Your task to perform on an android device: check battery use Image 0: 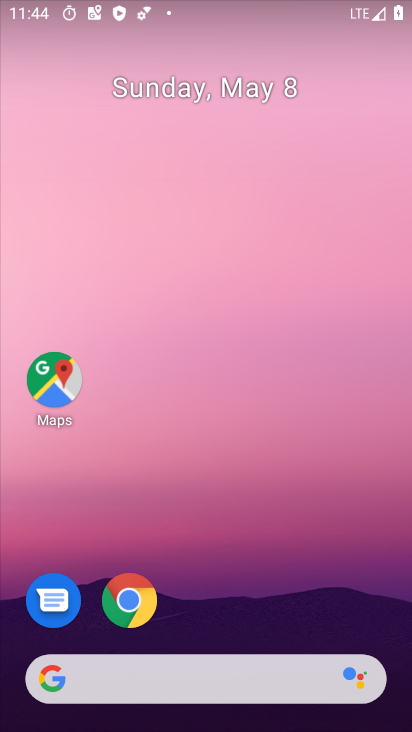
Step 0: click (220, 222)
Your task to perform on an android device: check battery use Image 1: 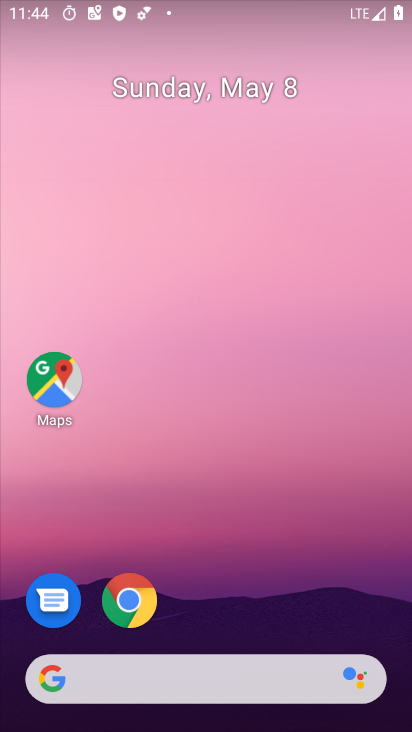
Step 1: drag from (248, 601) to (261, 130)
Your task to perform on an android device: check battery use Image 2: 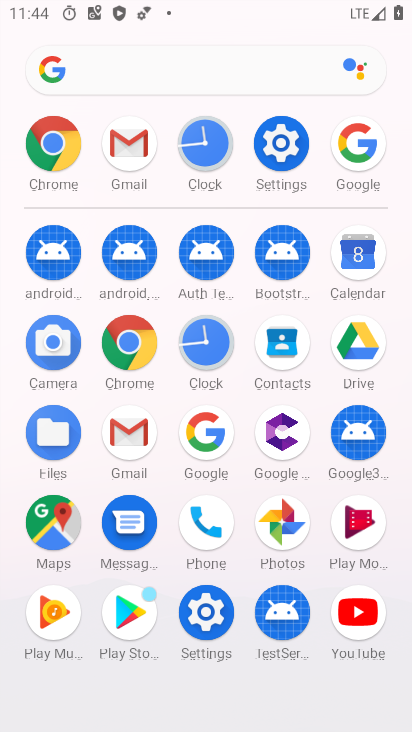
Step 2: click (297, 164)
Your task to perform on an android device: check battery use Image 3: 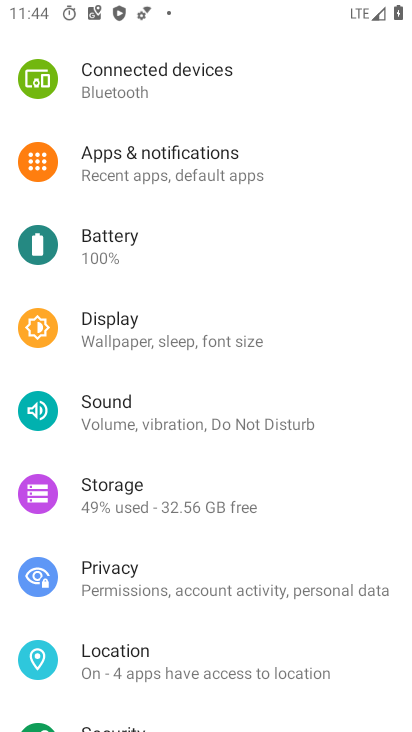
Step 3: drag from (161, 660) to (168, 402)
Your task to perform on an android device: check battery use Image 4: 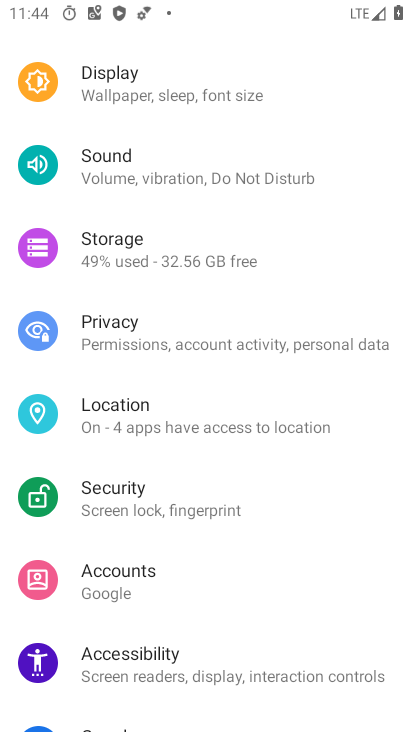
Step 4: drag from (251, 234) to (292, 615)
Your task to perform on an android device: check battery use Image 5: 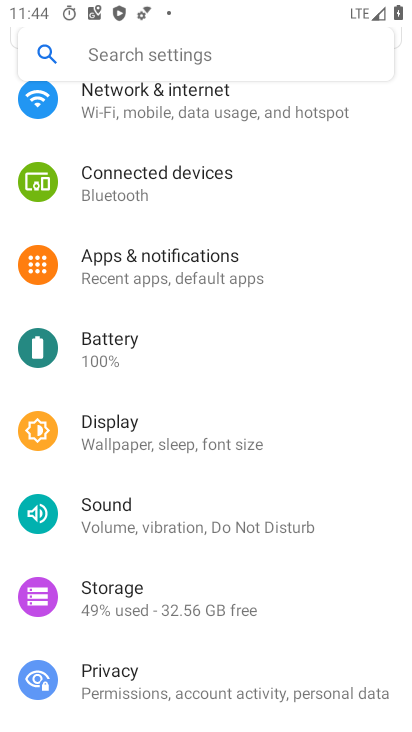
Step 5: click (177, 374)
Your task to perform on an android device: check battery use Image 6: 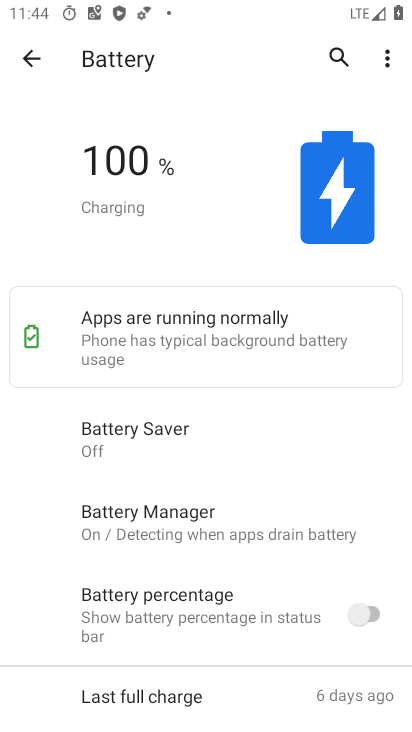
Step 6: click (386, 70)
Your task to perform on an android device: check battery use Image 7: 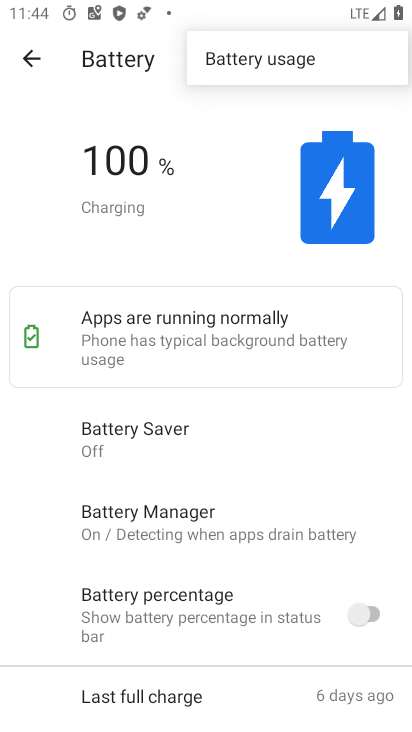
Step 7: click (315, 72)
Your task to perform on an android device: check battery use Image 8: 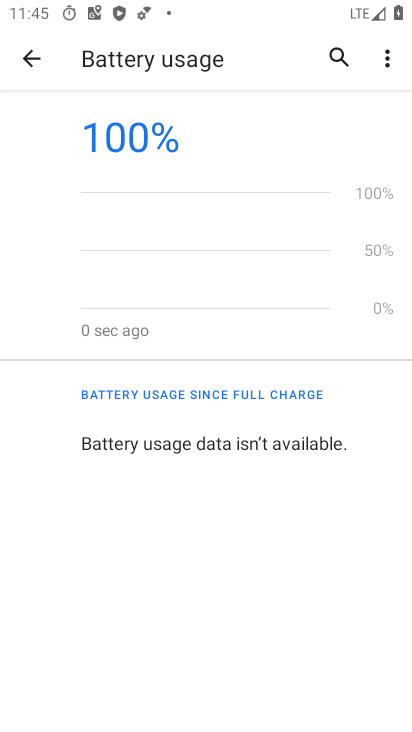
Step 8: task complete